Your task to perform on an android device: open sync settings in chrome Image 0: 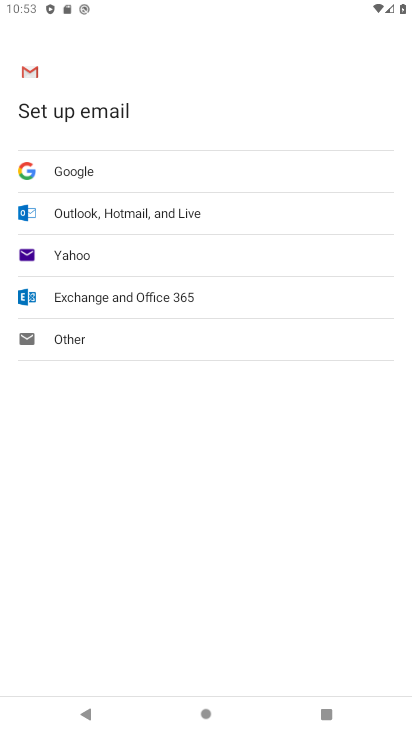
Step 0: press home button
Your task to perform on an android device: open sync settings in chrome Image 1: 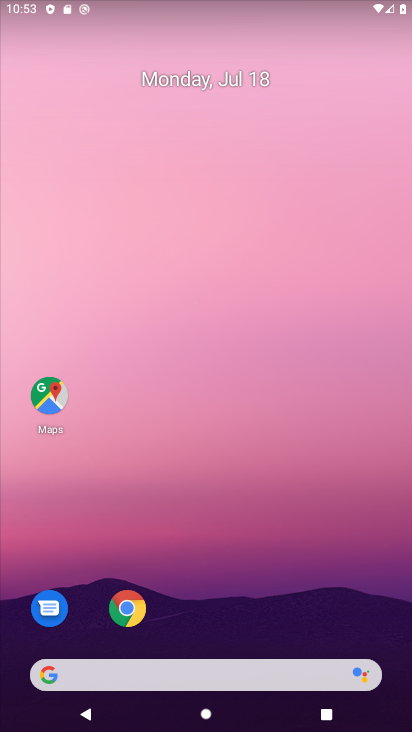
Step 1: drag from (274, 635) to (283, 104)
Your task to perform on an android device: open sync settings in chrome Image 2: 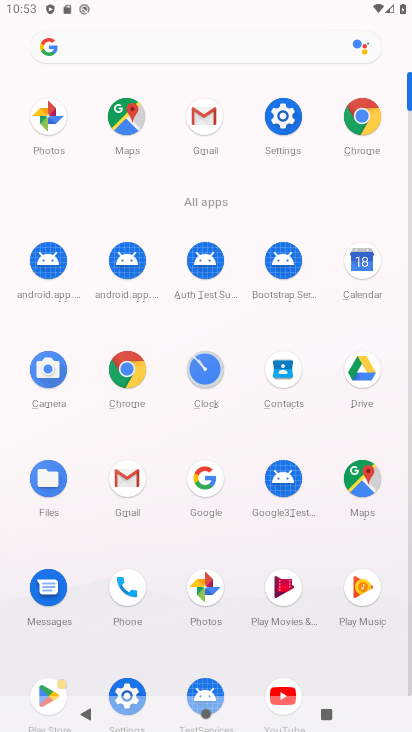
Step 2: click (115, 369)
Your task to perform on an android device: open sync settings in chrome Image 3: 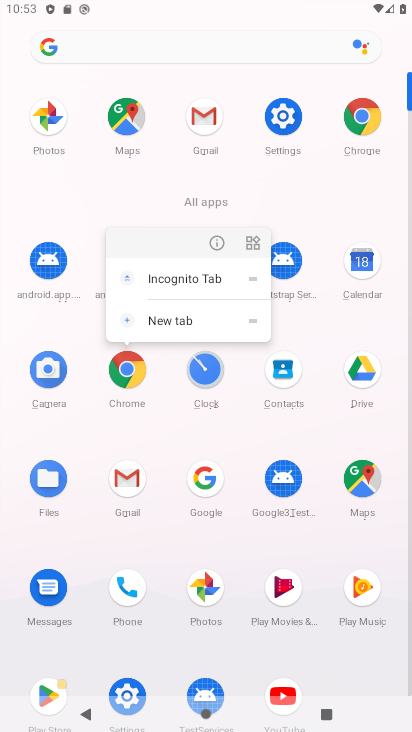
Step 3: click (131, 369)
Your task to perform on an android device: open sync settings in chrome Image 4: 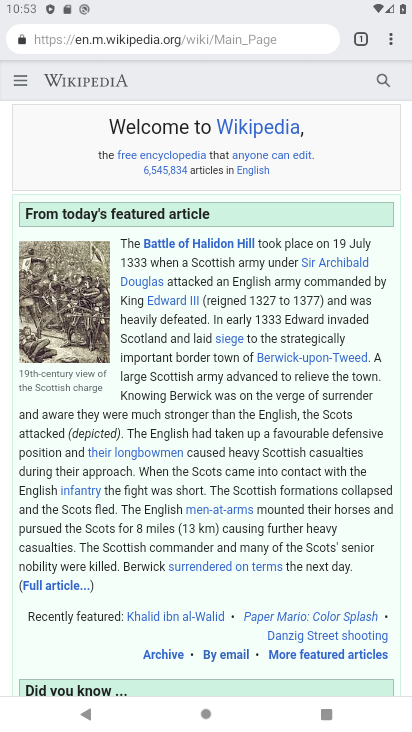
Step 4: drag from (390, 40) to (254, 458)
Your task to perform on an android device: open sync settings in chrome Image 5: 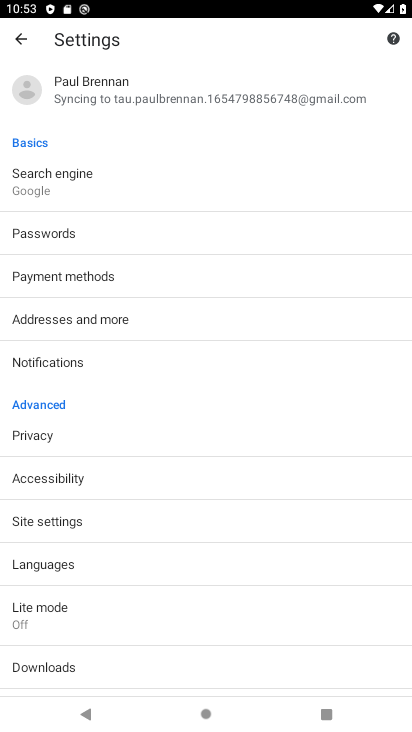
Step 5: click (180, 102)
Your task to perform on an android device: open sync settings in chrome Image 6: 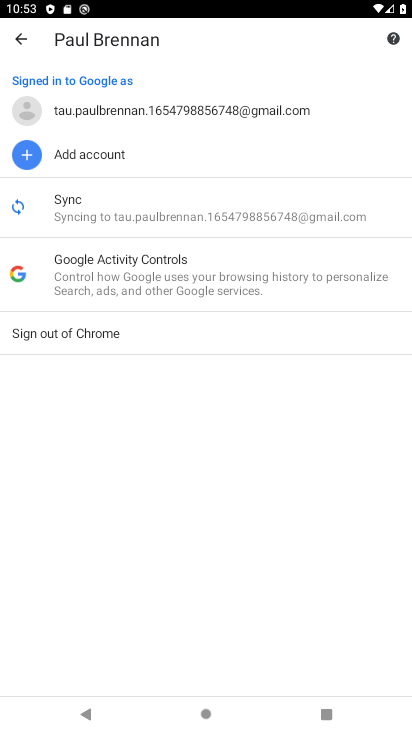
Step 6: click (162, 212)
Your task to perform on an android device: open sync settings in chrome Image 7: 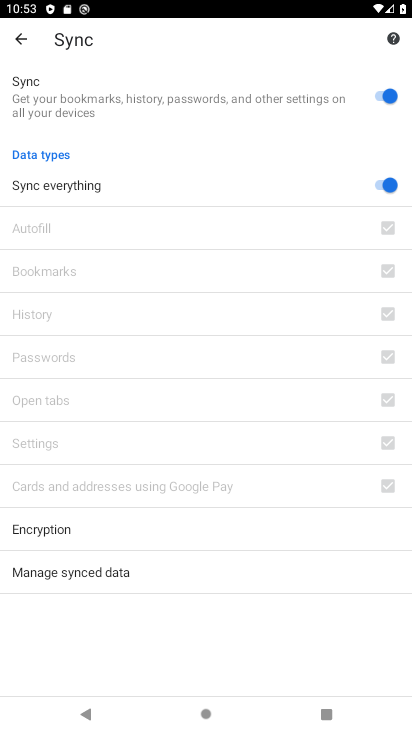
Step 7: task complete